Your task to perform on an android device: open the mobile data screen to see how much data has been used Image 0: 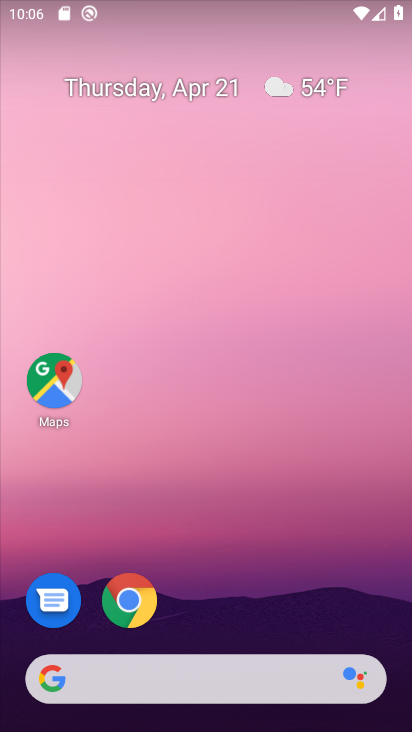
Step 0: drag from (268, 455) to (263, 95)
Your task to perform on an android device: open the mobile data screen to see how much data has been used Image 1: 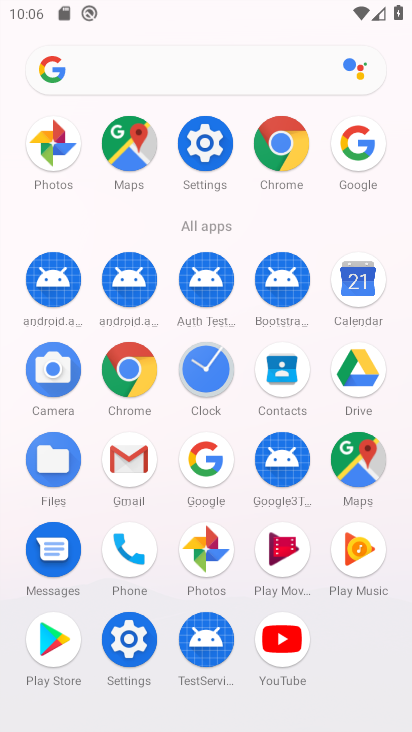
Step 1: click (207, 153)
Your task to perform on an android device: open the mobile data screen to see how much data has been used Image 2: 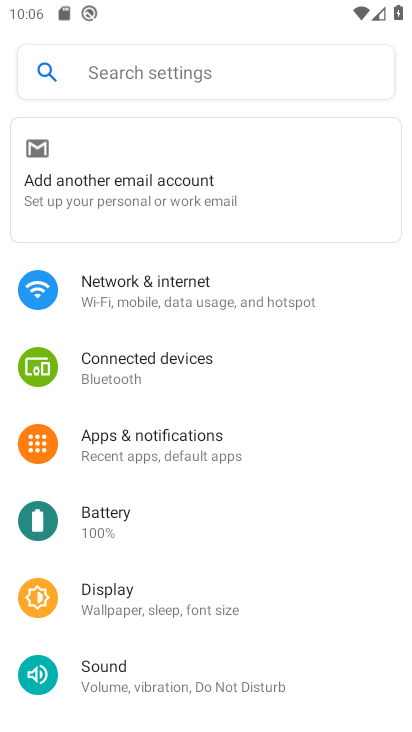
Step 2: click (174, 283)
Your task to perform on an android device: open the mobile data screen to see how much data has been used Image 3: 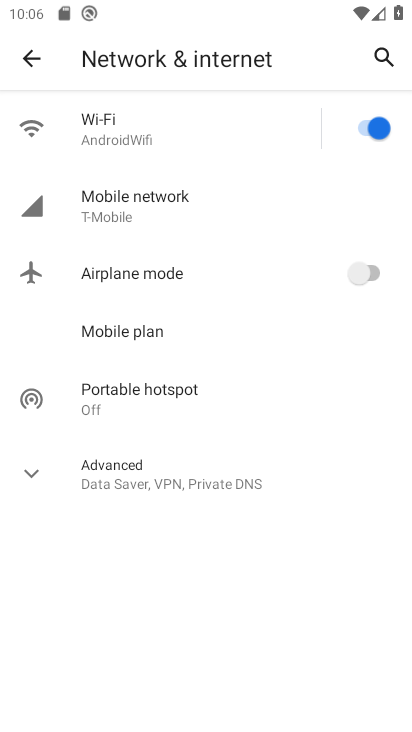
Step 3: click (157, 207)
Your task to perform on an android device: open the mobile data screen to see how much data has been used Image 4: 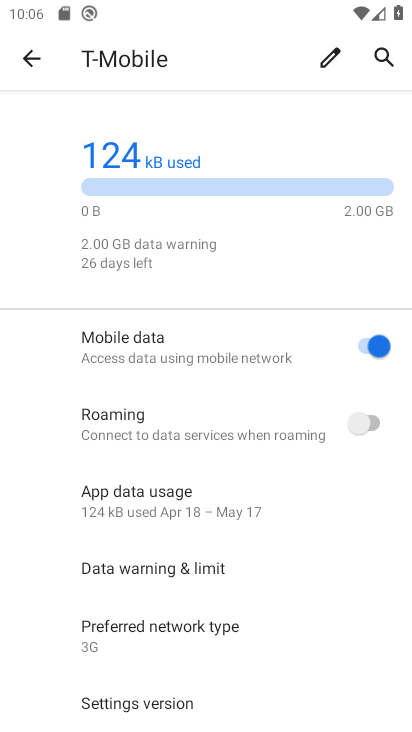
Step 4: task complete